Your task to perform on an android device: What's on the menu at Chick-fil-A? Image 0: 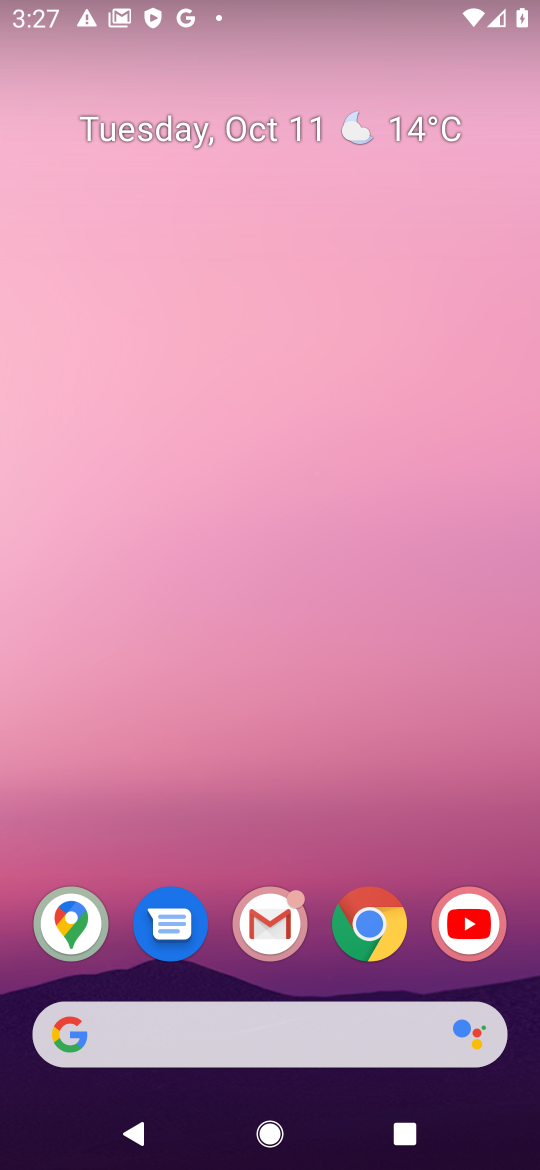
Step 0: click (356, 912)
Your task to perform on an android device: What's on the menu at Chick-fil-A? Image 1: 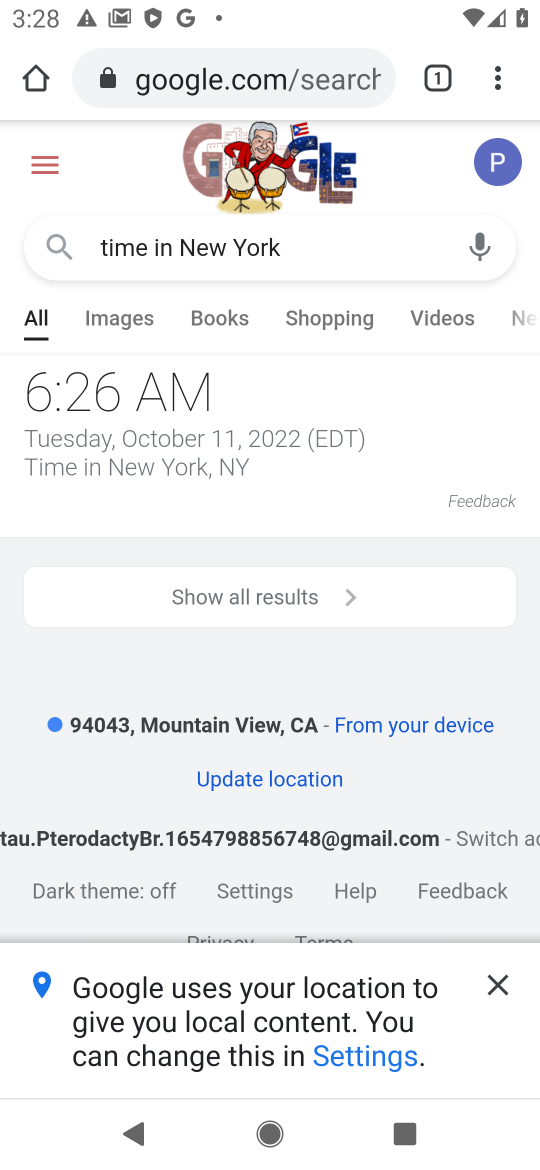
Step 1: click (251, 78)
Your task to perform on an android device: What's on the menu at Chick-fil-A? Image 2: 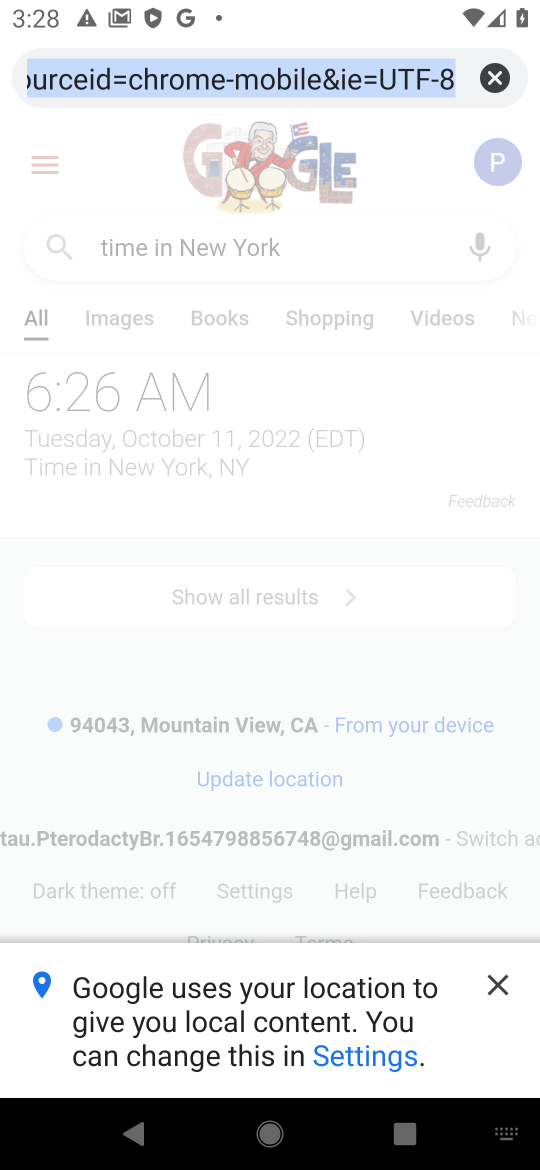
Step 2: type "menu at Chick-fil-A"
Your task to perform on an android device: What's on the menu at Chick-fil-A? Image 3: 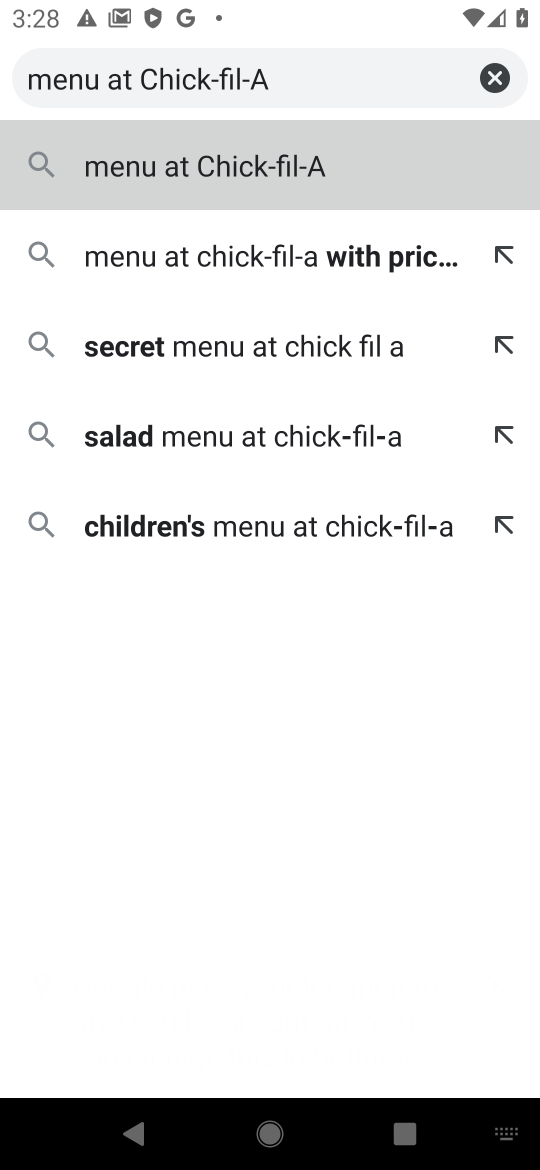
Step 3: click (318, 179)
Your task to perform on an android device: What's on the menu at Chick-fil-A? Image 4: 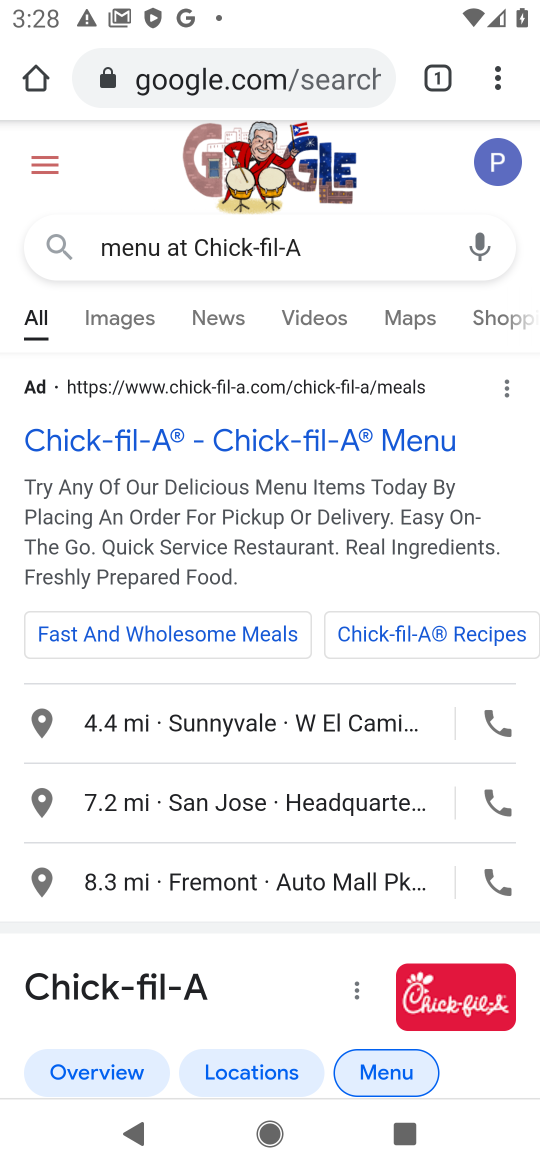
Step 4: drag from (359, 959) to (310, 682)
Your task to perform on an android device: What's on the menu at Chick-fil-A? Image 5: 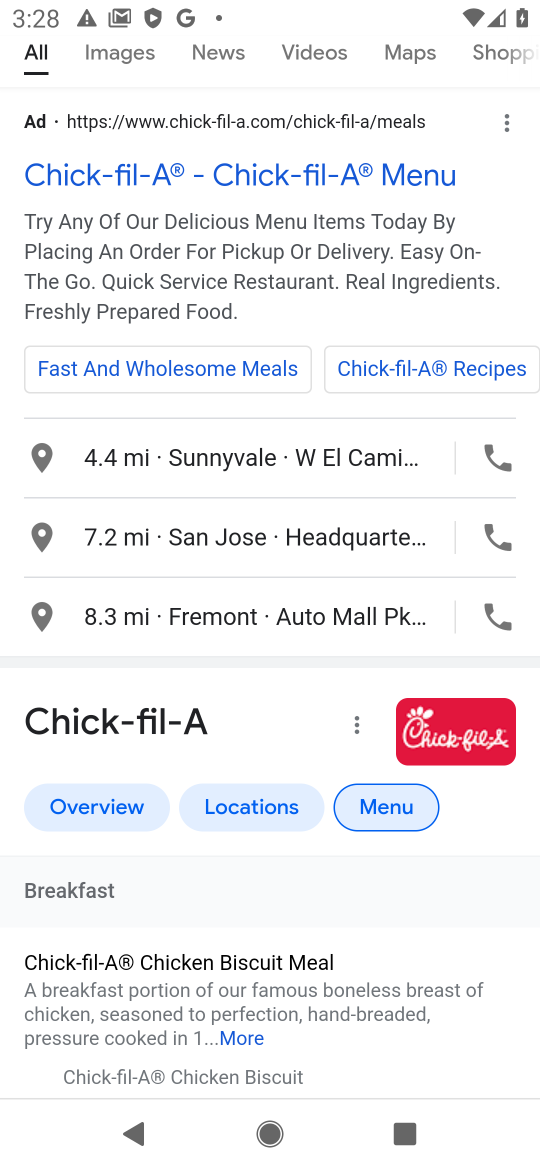
Step 5: drag from (435, 964) to (405, 763)
Your task to perform on an android device: What's on the menu at Chick-fil-A? Image 6: 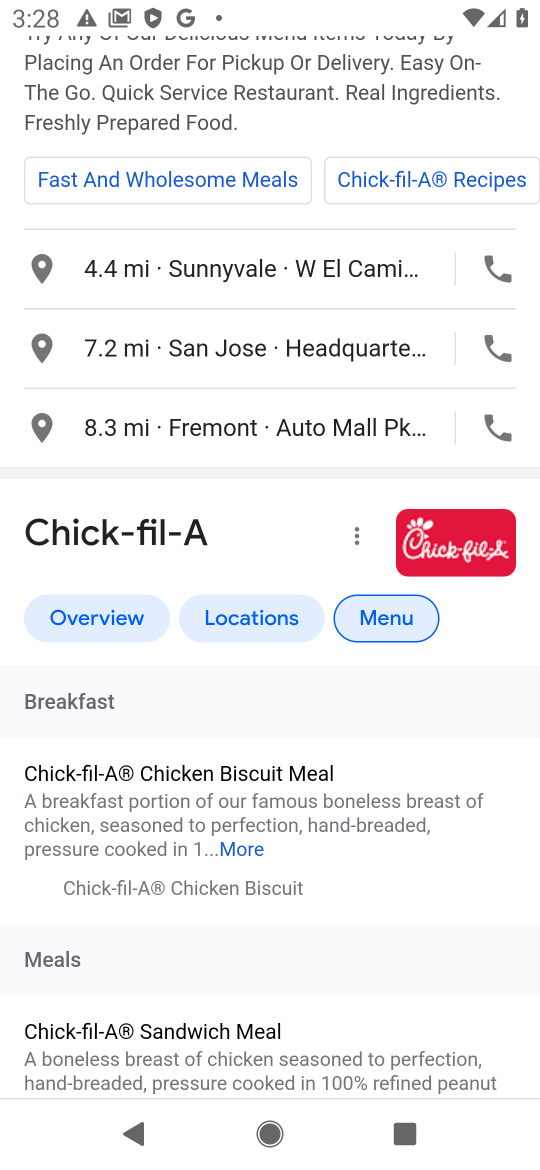
Step 6: drag from (474, 967) to (405, 621)
Your task to perform on an android device: What's on the menu at Chick-fil-A? Image 7: 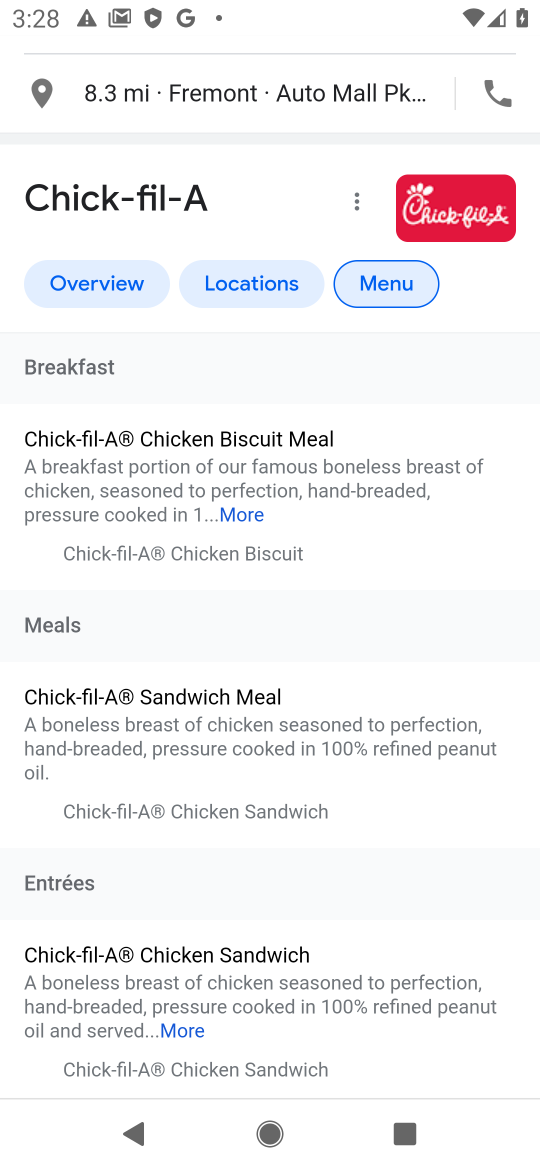
Step 7: drag from (434, 926) to (389, 659)
Your task to perform on an android device: What's on the menu at Chick-fil-A? Image 8: 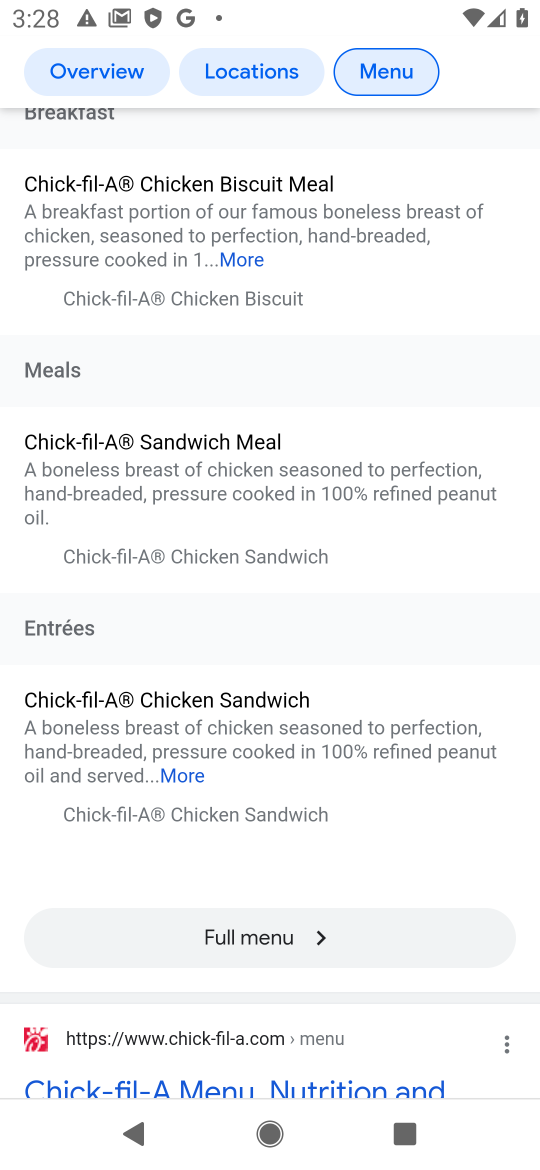
Step 8: click (270, 937)
Your task to perform on an android device: What's on the menu at Chick-fil-A? Image 9: 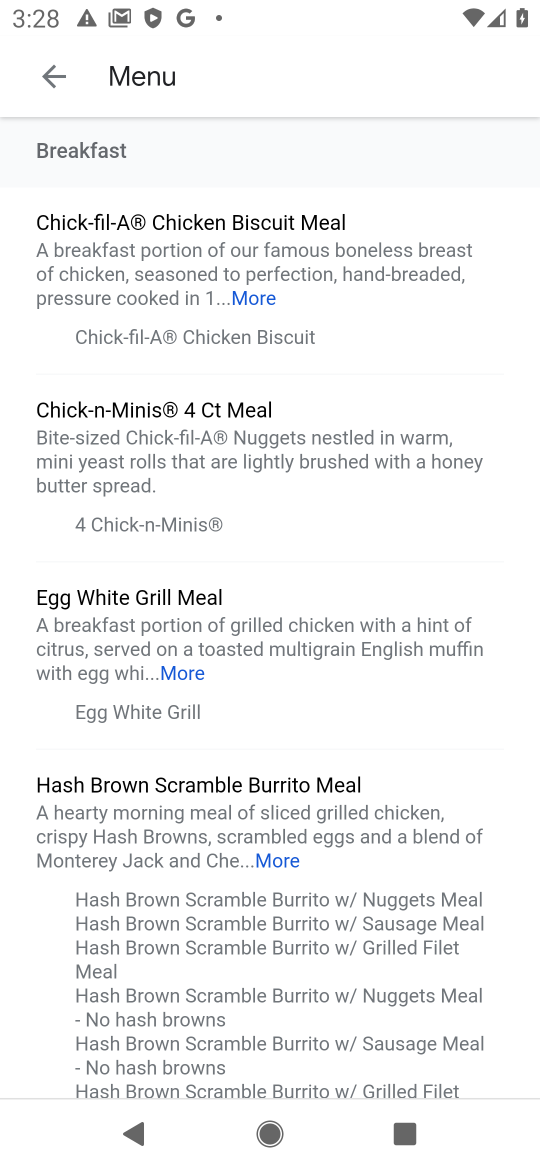
Step 9: task complete